Your task to perform on an android device: turn on location history Image 0: 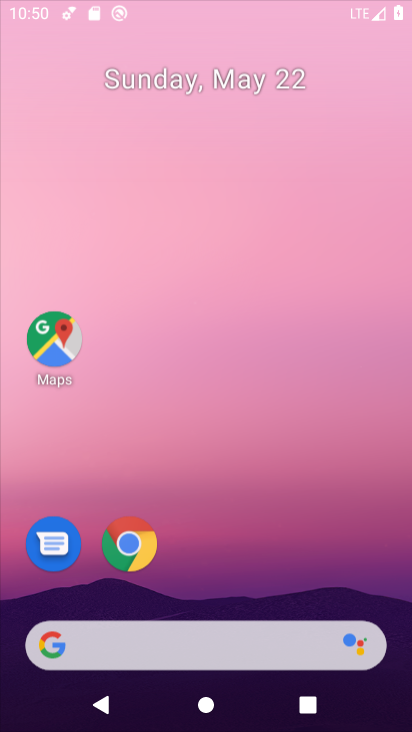
Step 0: click (402, 301)
Your task to perform on an android device: turn on location history Image 1: 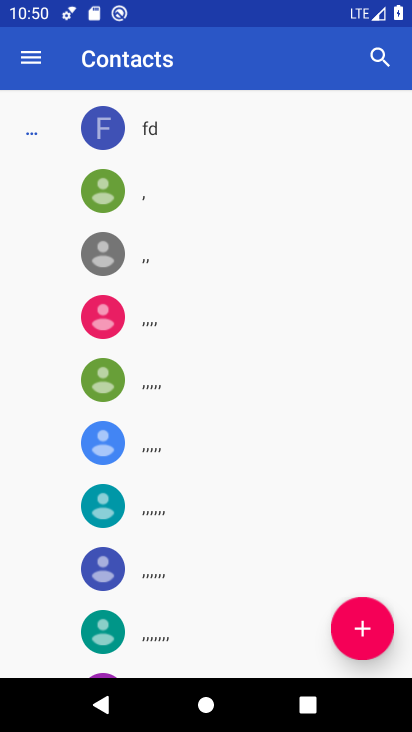
Step 1: drag from (215, 629) to (280, 165)
Your task to perform on an android device: turn on location history Image 2: 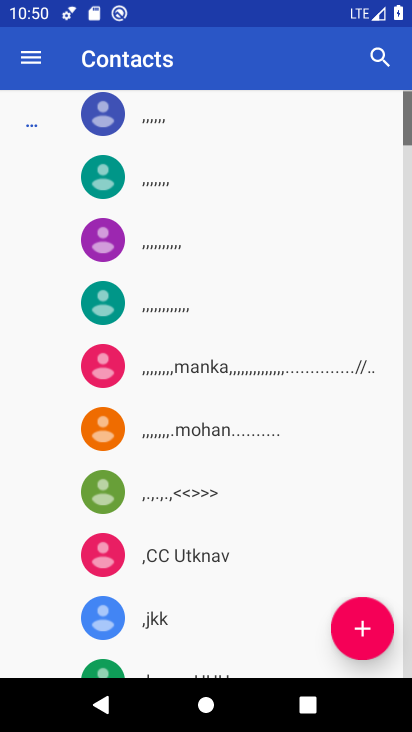
Step 2: press home button
Your task to perform on an android device: turn on location history Image 3: 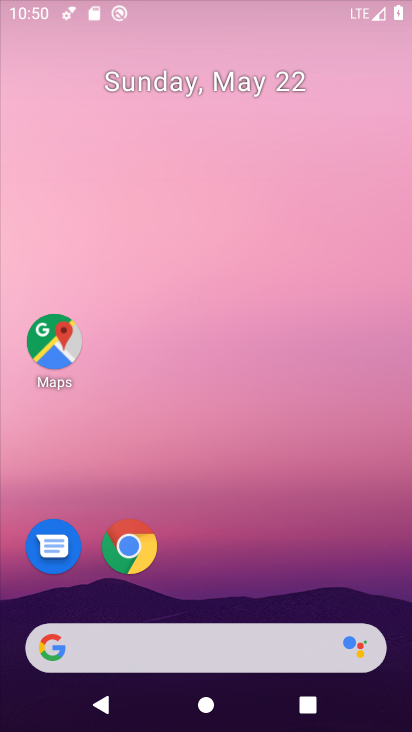
Step 3: drag from (219, 542) to (253, 113)
Your task to perform on an android device: turn on location history Image 4: 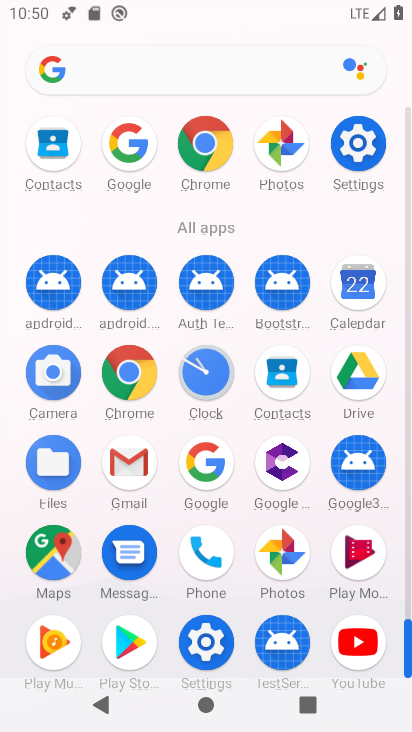
Step 4: click (365, 153)
Your task to perform on an android device: turn on location history Image 5: 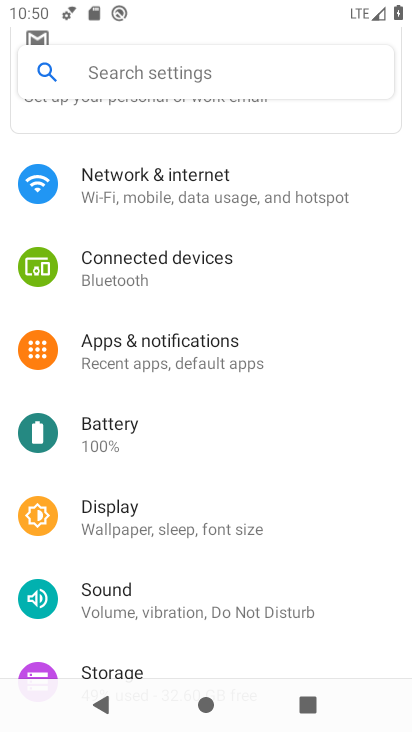
Step 5: drag from (191, 563) to (189, 174)
Your task to perform on an android device: turn on location history Image 6: 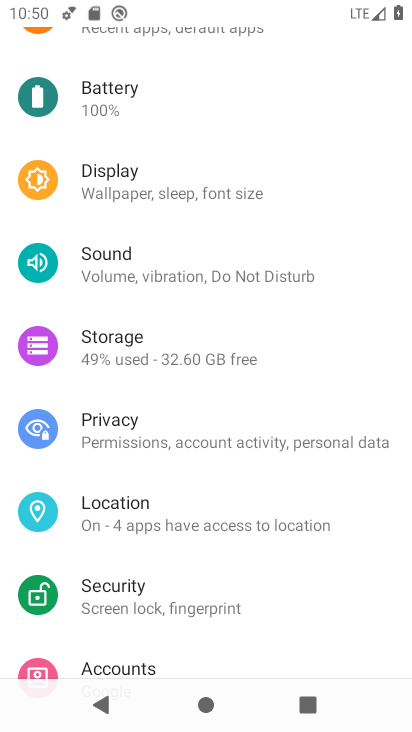
Step 6: drag from (185, 163) to (201, 85)
Your task to perform on an android device: turn on location history Image 7: 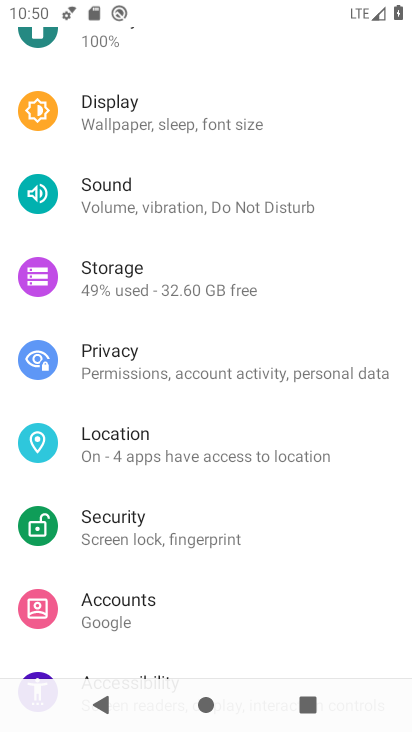
Step 7: click (214, 458)
Your task to perform on an android device: turn on location history Image 8: 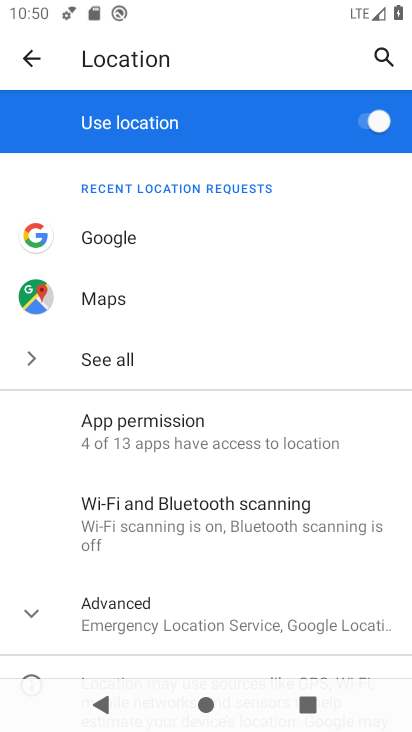
Step 8: drag from (176, 514) to (188, 297)
Your task to perform on an android device: turn on location history Image 9: 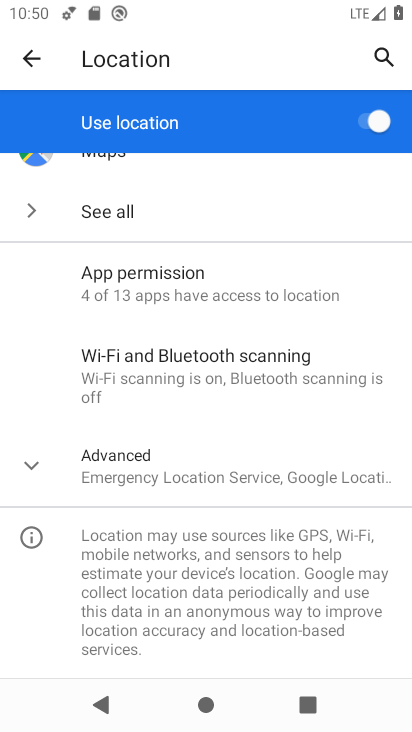
Step 9: click (217, 478)
Your task to perform on an android device: turn on location history Image 10: 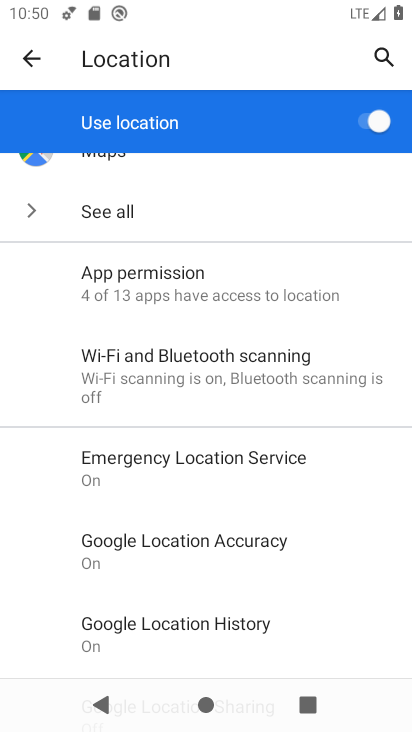
Step 10: drag from (243, 545) to (254, 365)
Your task to perform on an android device: turn on location history Image 11: 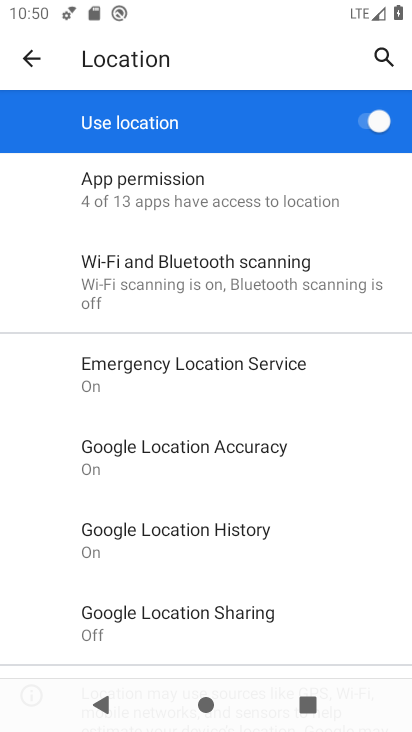
Step 11: click (257, 541)
Your task to perform on an android device: turn on location history Image 12: 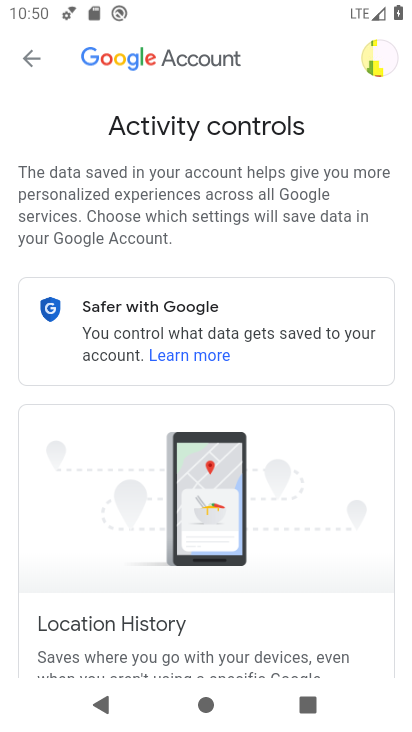
Step 12: task complete